Your task to perform on an android device: Open Google Chrome and open the bookmarks view Image 0: 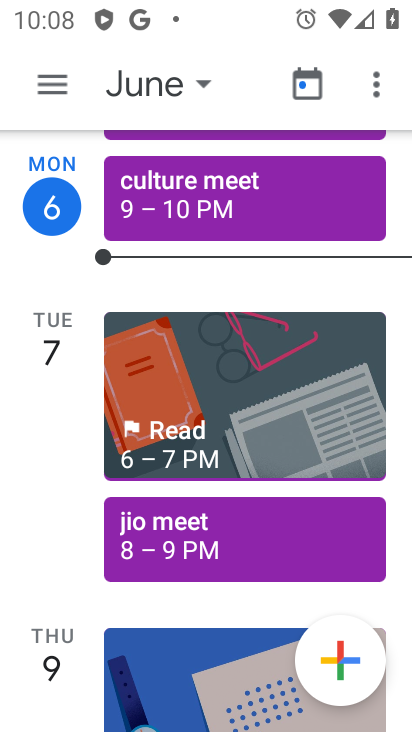
Step 0: press home button
Your task to perform on an android device: Open Google Chrome and open the bookmarks view Image 1: 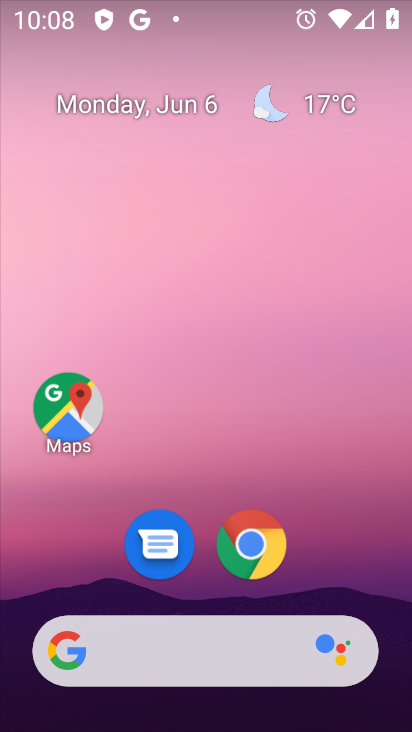
Step 1: drag from (109, 617) to (250, 75)
Your task to perform on an android device: Open Google Chrome and open the bookmarks view Image 2: 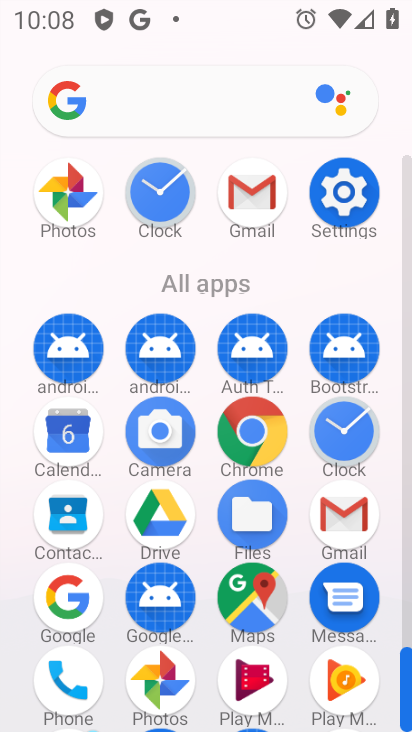
Step 2: click (247, 421)
Your task to perform on an android device: Open Google Chrome and open the bookmarks view Image 3: 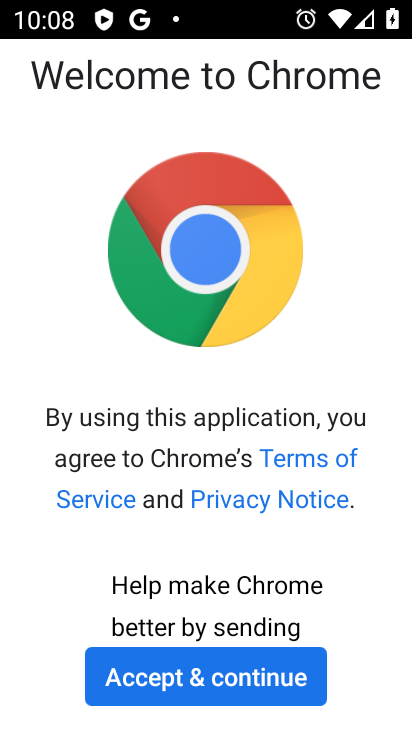
Step 3: click (234, 673)
Your task to perform on an android device: Open Google Chrome and open the bookmarks view Image 4: 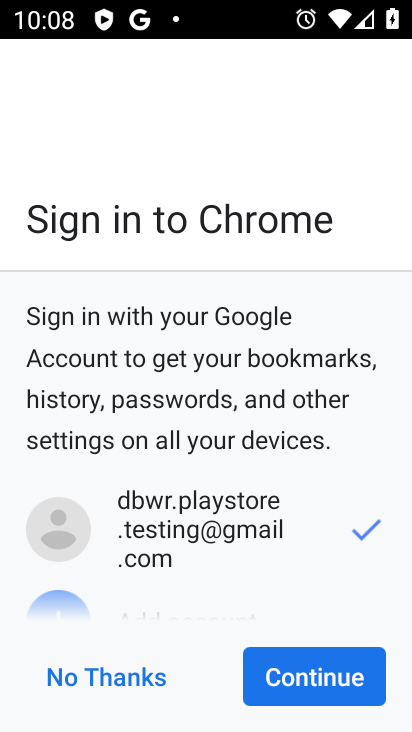
Step 4: click (321, 682)
Your task to perform on an android device: Open Google Chrome and open the bookmarks view Image 5: 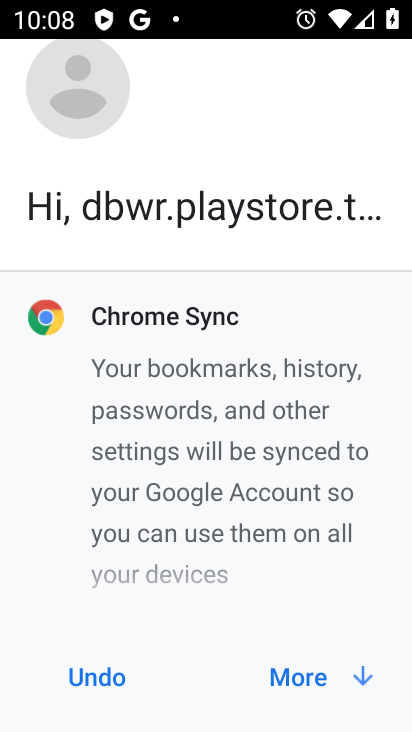
Step 5: click (322, 683)
Your task to perform on an android device: Open Google Chrome and open the bookmarks view Image 6: 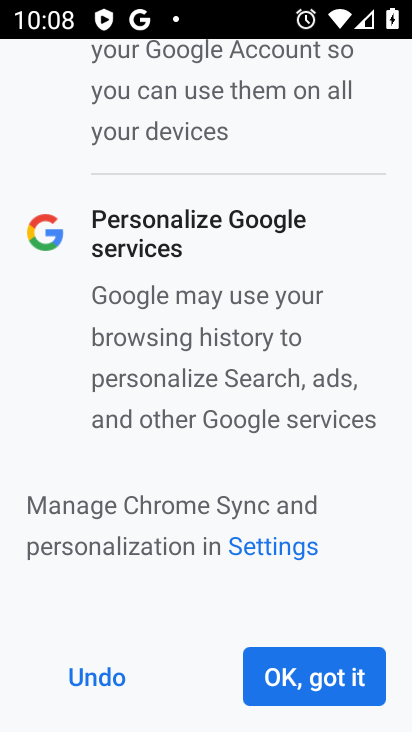
Step 6: click (322, 683)
Your task to perform on an android device: Open Google Chrome and open the bookmarks view Image 7: 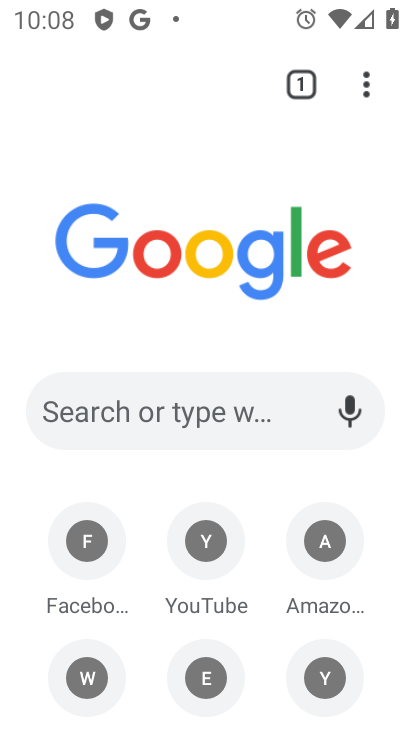
Step 7: task complete